Your task to perform on an android device: change timer sound Image 0: 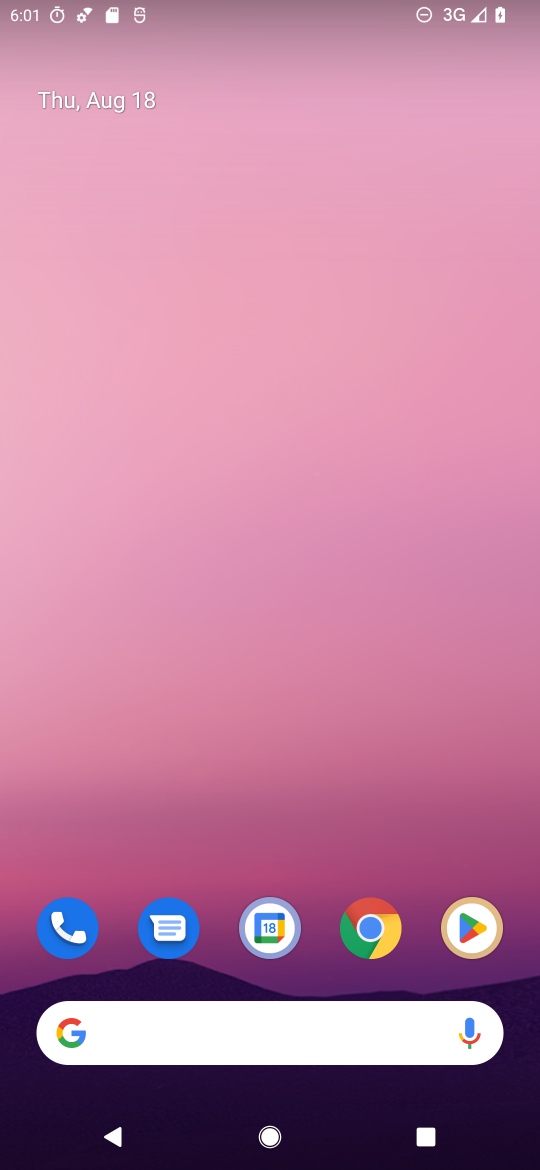
Step 0: drag from (262, 778) to (462, 49)
Your task to perform on an android device: change timer sound Image 1: 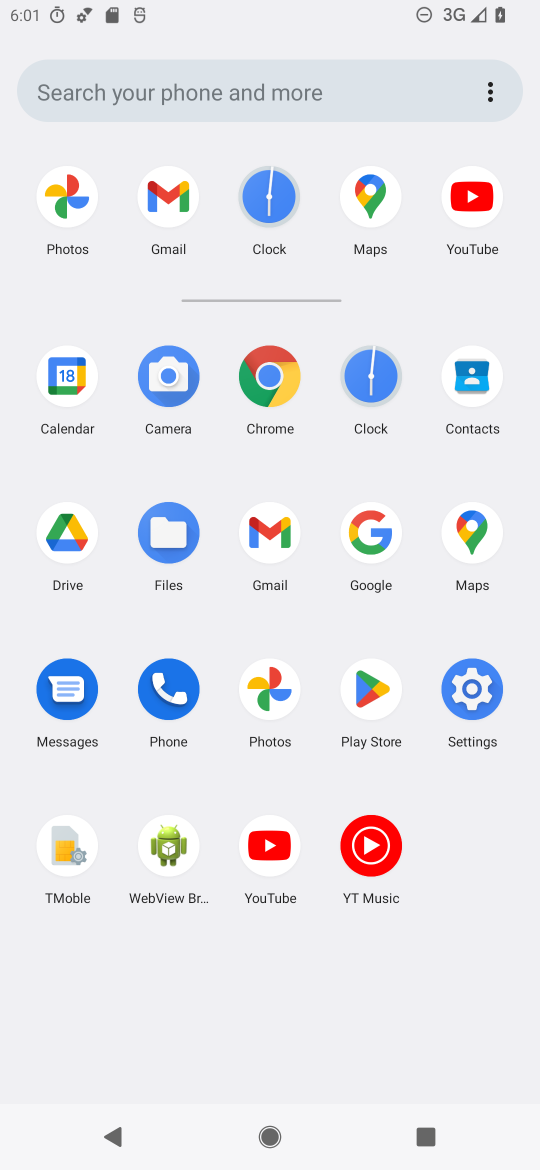
Step 1: click (460, 687)
Your task to perform on an android device: change timer sound Image 2: 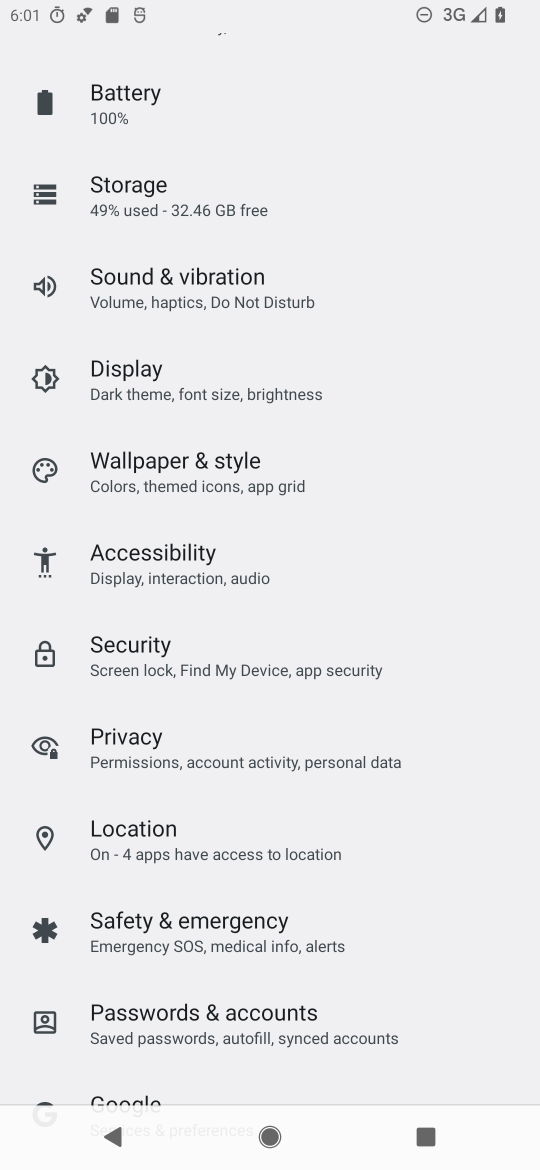
Step 2: drag from (334, 793) to (183, 1052)
Your task to perform on an android device: change timer sound Image 3: 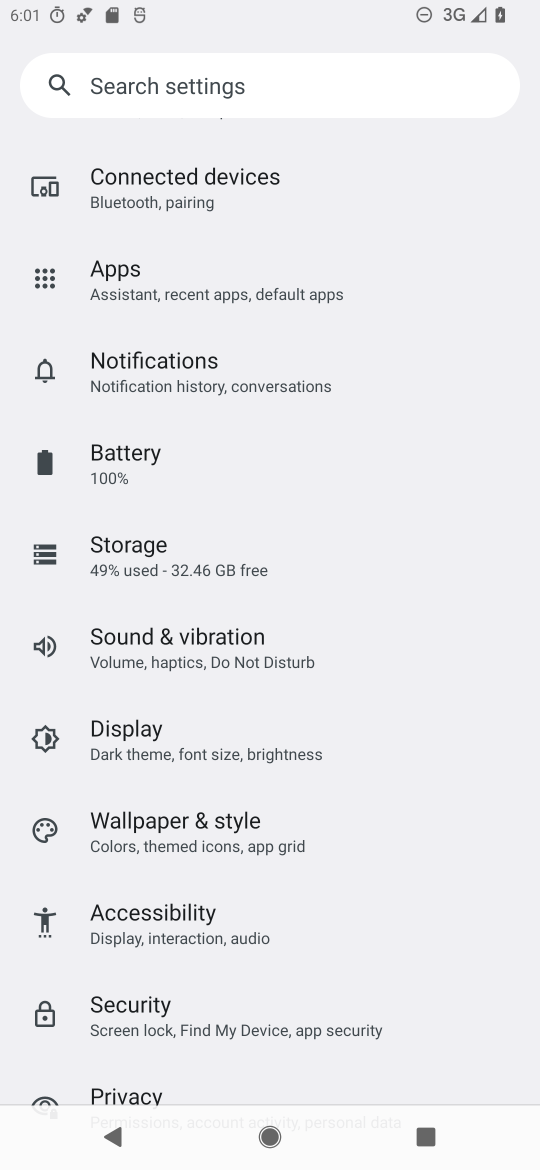
Step 3: press home button
Your task to perform on an android device: change timer sound Image 4: 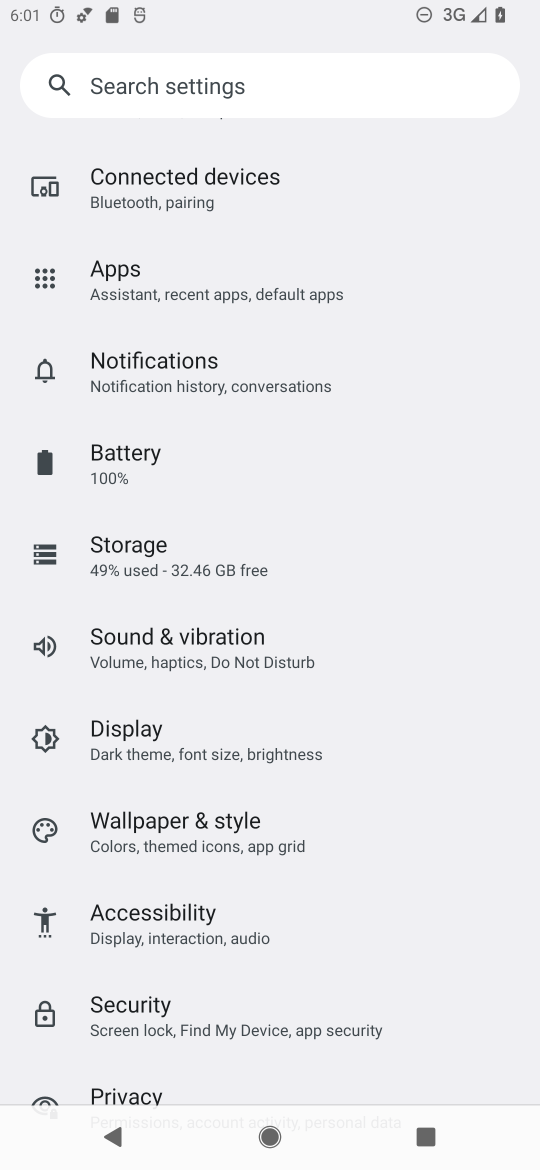
Step 4: press home button
Your task to perform on an android device: change timer sound Image 5: 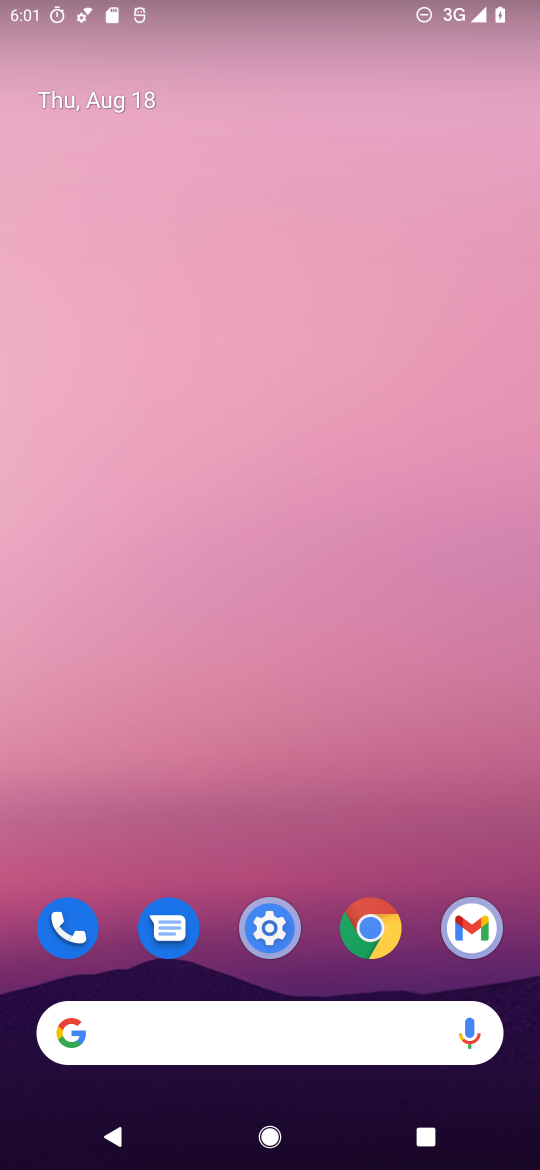
Step 5: drag from (411, 836) to (479, 131)
Your task to perform on an android device: change timer sound Image 6: 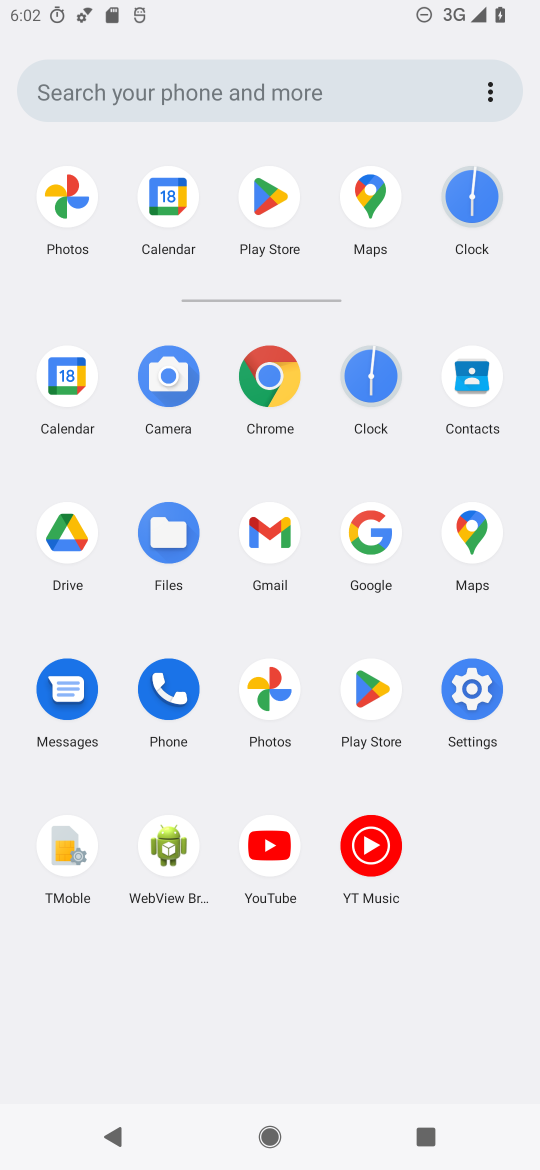
Step 6: click (371, 370)
Your task to perform on an android device: change timer sound Image 7: 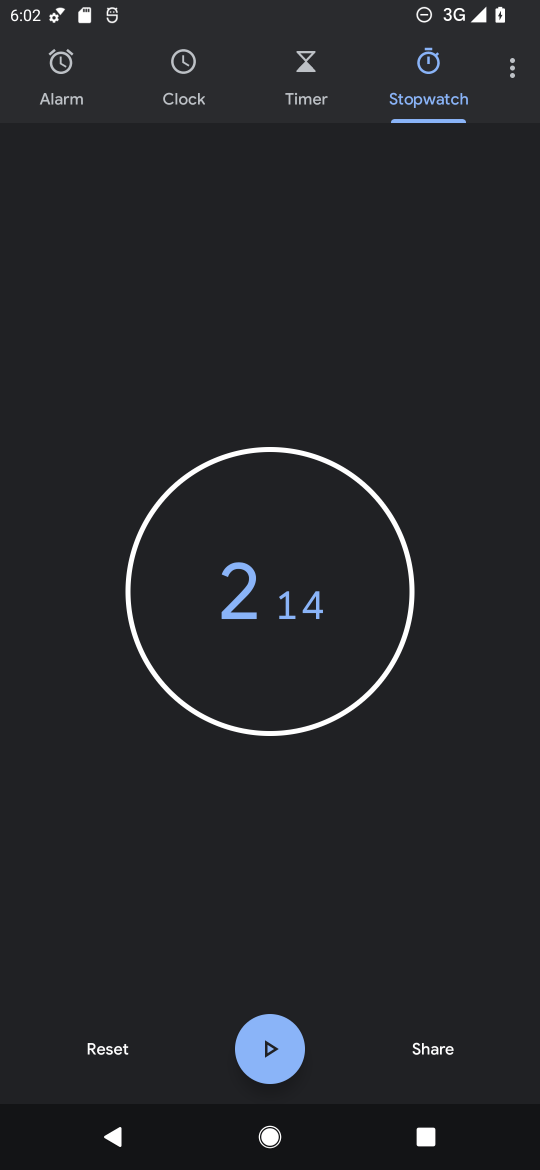
Step 7: click (508, 56)
Your task to perform on an android device: change timer sound Image 8: 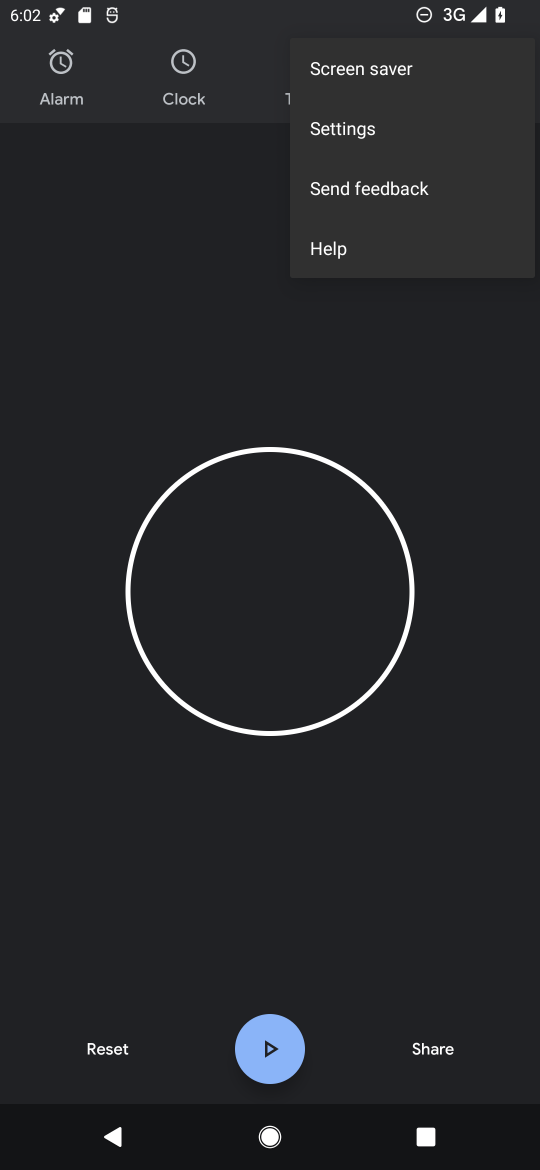
Step 8: click (368, 122)
Your task to perform on an android device: change timer sound Image 9: 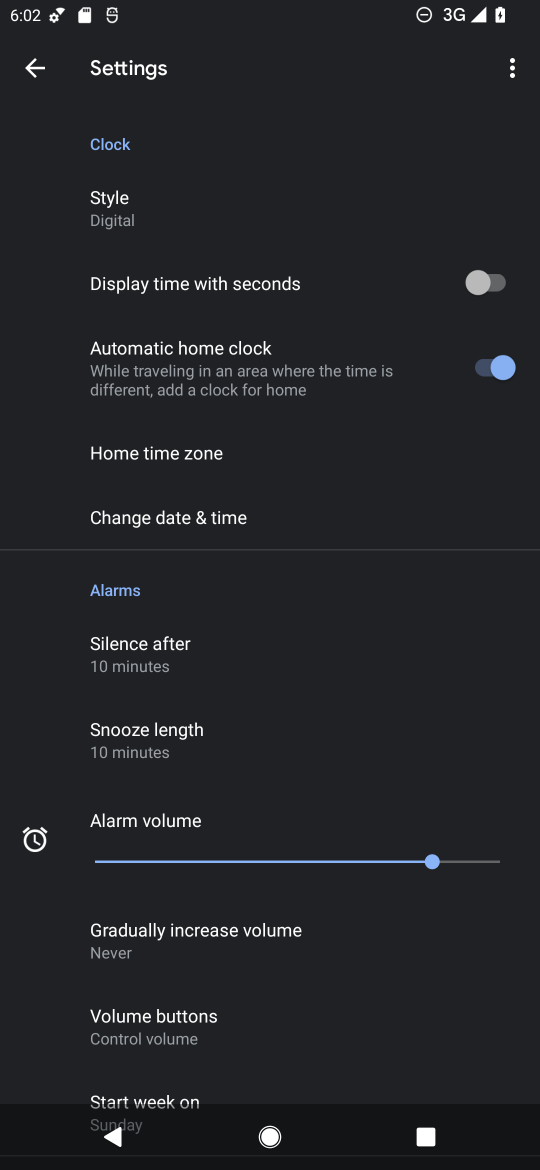
Step 9: drag from (312, 695) to (397, 244)
Your task to perform on an android device: change timer sound Image 10: 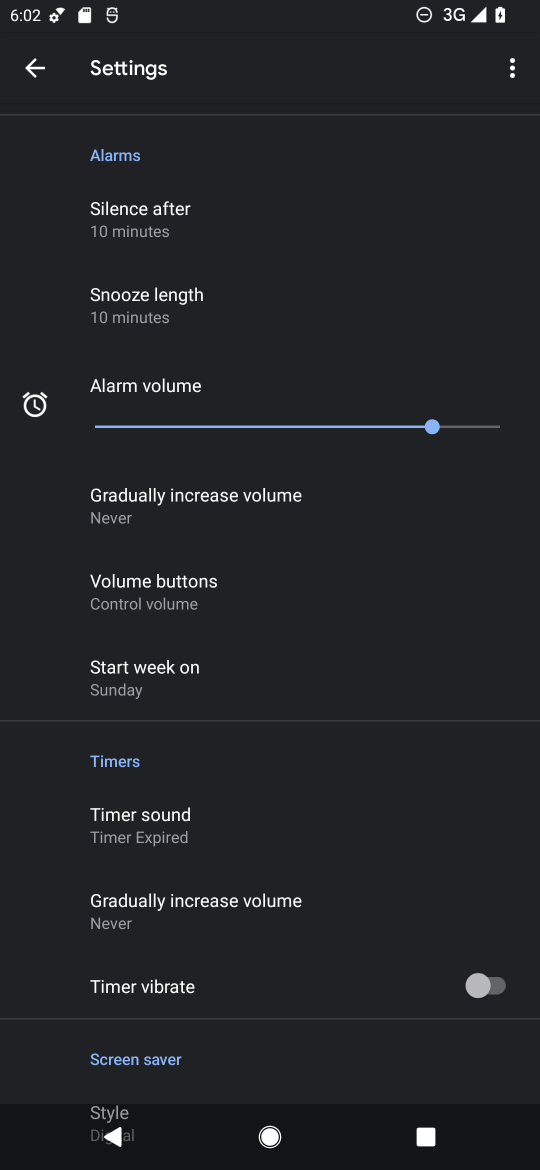
Step 10: click (161, 818)
Your task to perform on an android device: change timer sound Image 11: 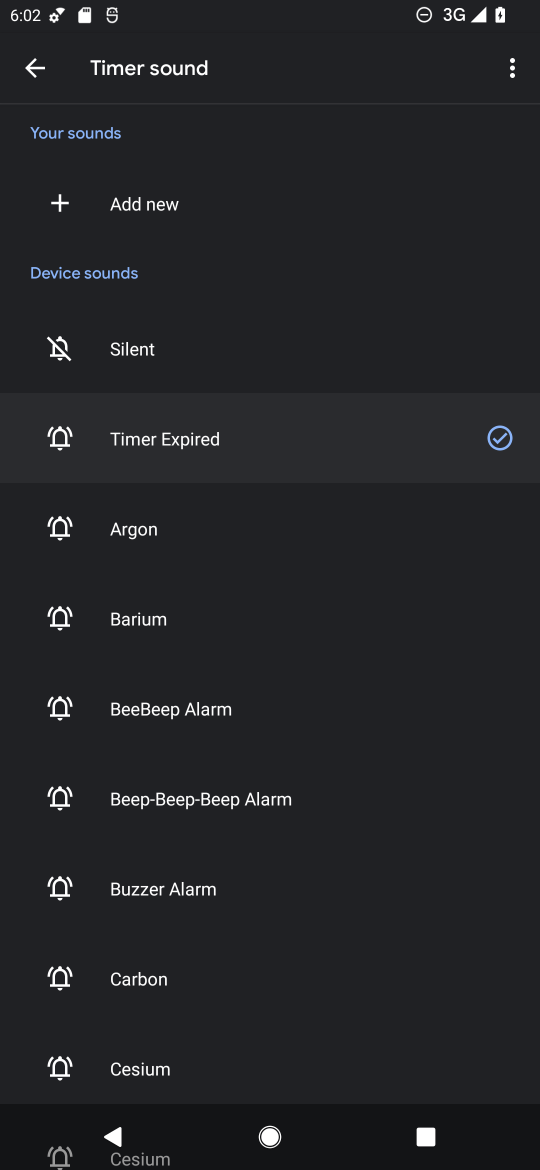
Step 11: click (190, 530)
Your task to perform on an android device: change timer sound Image 12: 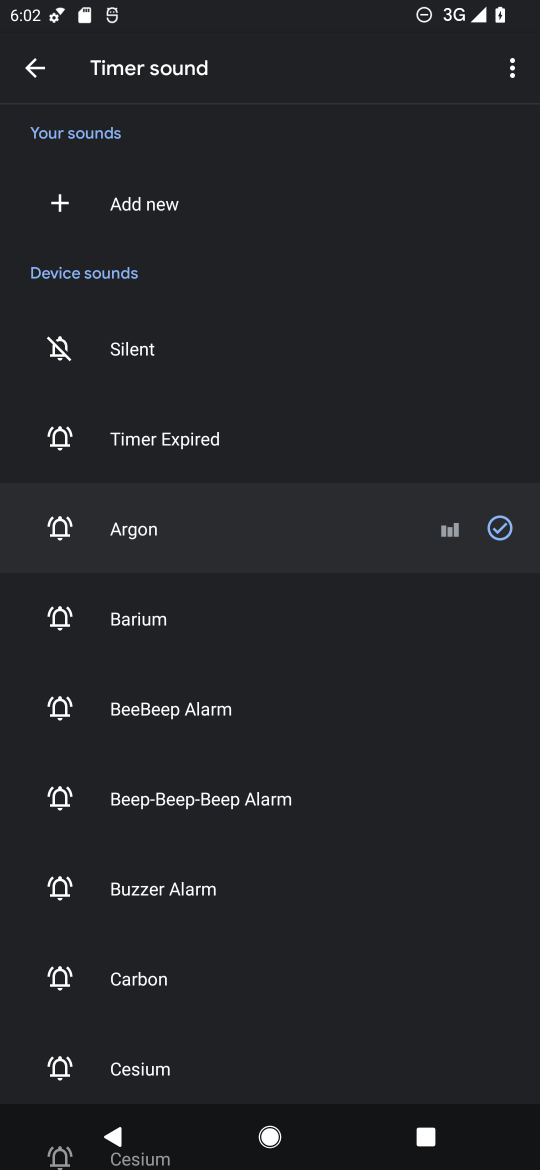
Step 12: task complete